Your task to perform on an android device: Open Google Image 0: 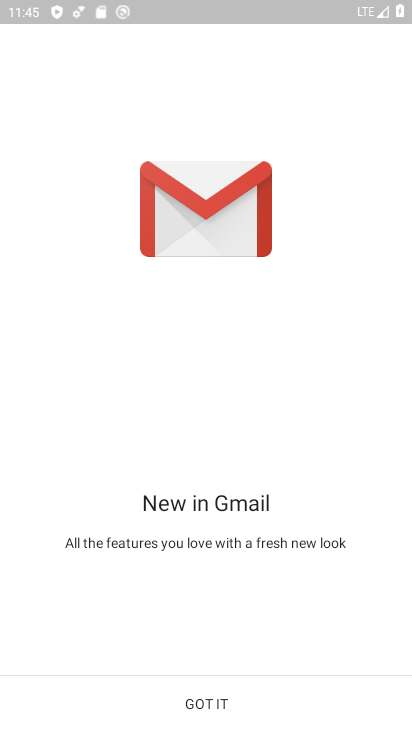
Step 0: press home button
Your task to perform on an android device: Open Google Image 1: 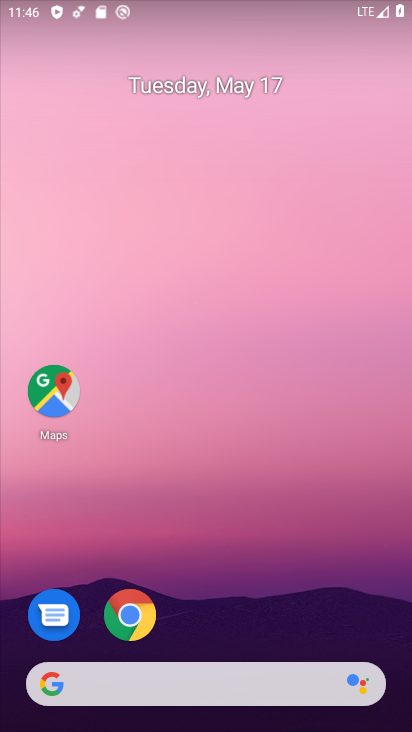
Step 1: drag from (210, 699) to (327, 197)
Your task to perform on an android device: Open Google Image 2: 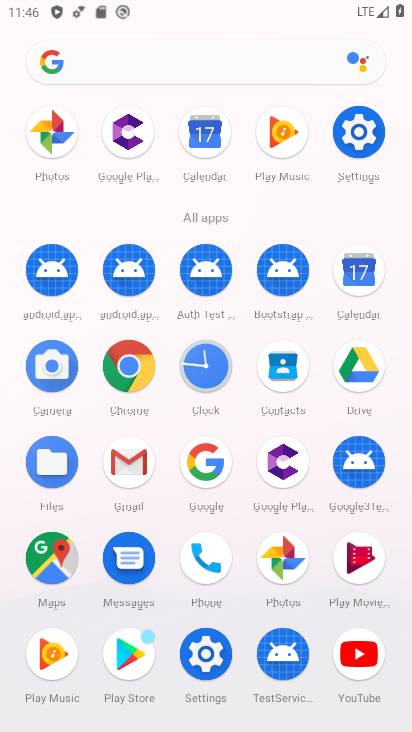
Step 2: click (51, 62)
Your task to perform on an android device: Open Google Image 3: 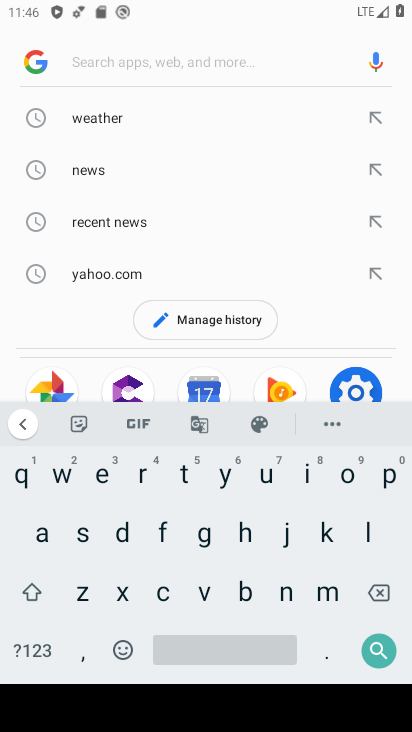
Step 3: click (26, 61)
Your task to perform on an android device: Open Google Image 4: 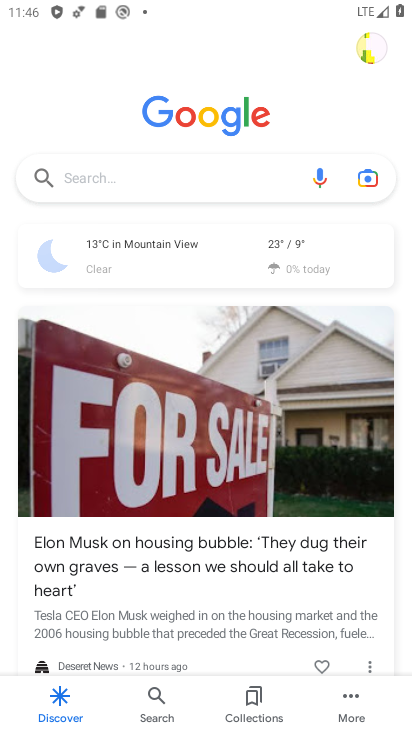
Step 4: task complete